Your task to perform on an android device: Show me productivity apps on the Play Store Image 0: 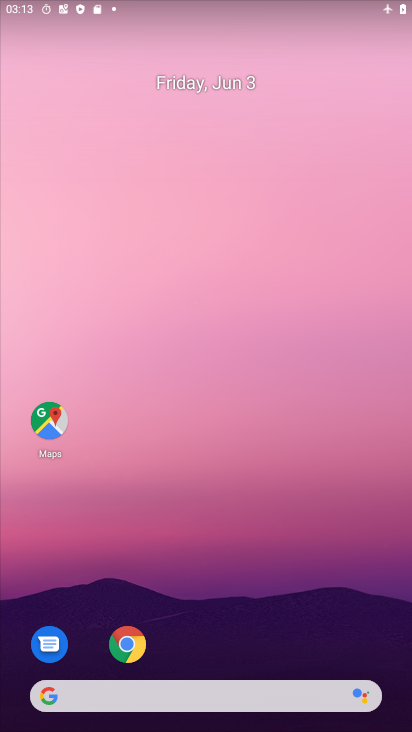
Step 0: drag from (240, 649) to (264, 303)
Your task to perform on an android device: Show me productivity apps on the Play Store Image 1: 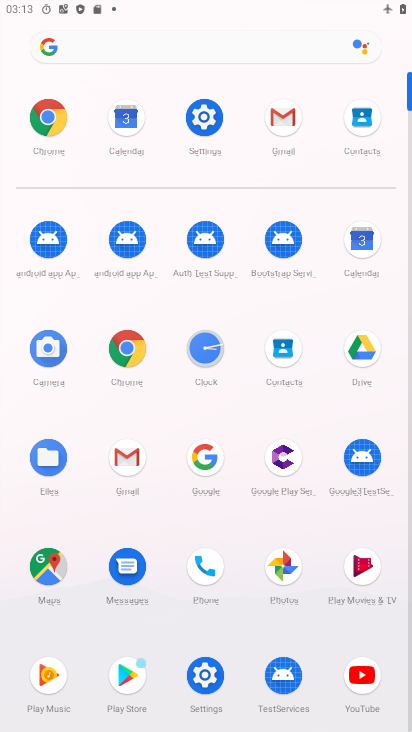
Step 1: click (120, 688)
Your task to perform on an android device: Show me productivity apps on the Play Store Image 2: 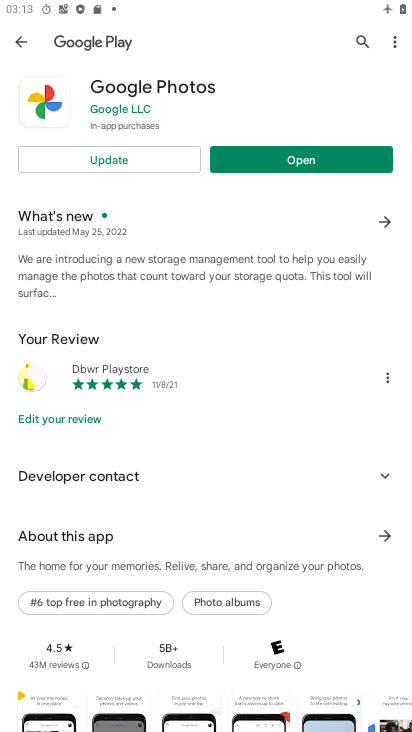
Step 2: click (13, 38)
Your task to perform on an android device: Show me productivity apps on the Play Store Image 3: 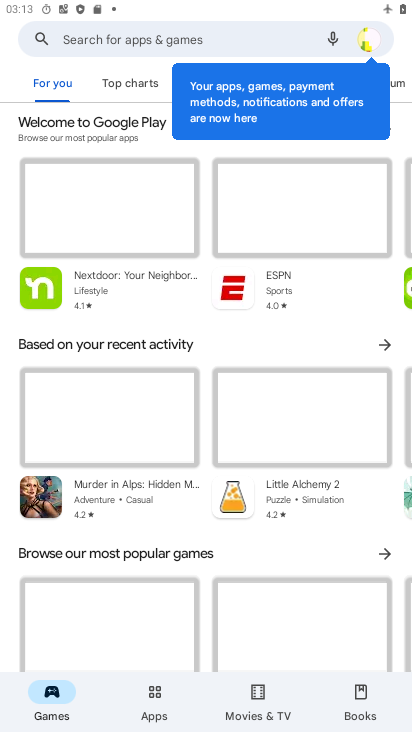
Step 3: click (162, 696)
Your task to perform on an android device: Show me productivity apps on the Play Store Image 4: 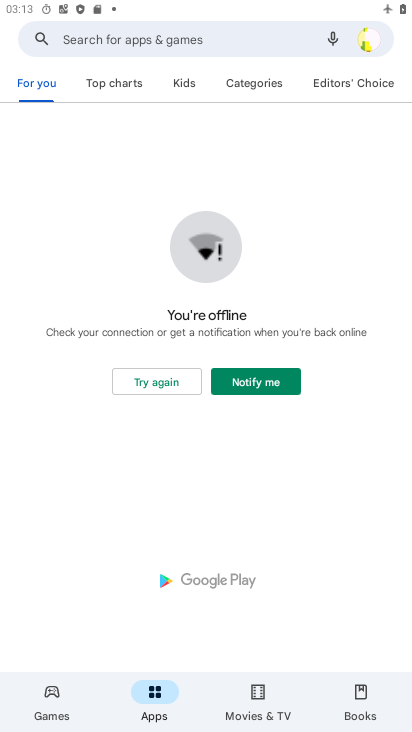
Step 4: task complete